Your task to perform on an android device: stop showing notifications on the lock screen Image 0: 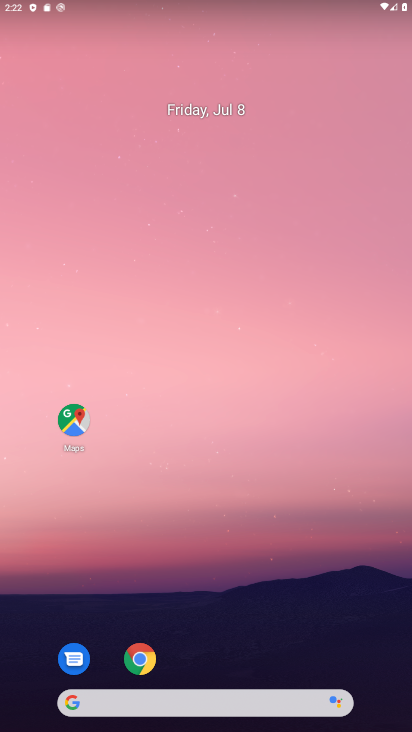
Step 0: drag from (230, 619) to (230, 257)
Your task to perform on an android device: stop showing notifications on the lock screen Image 1: 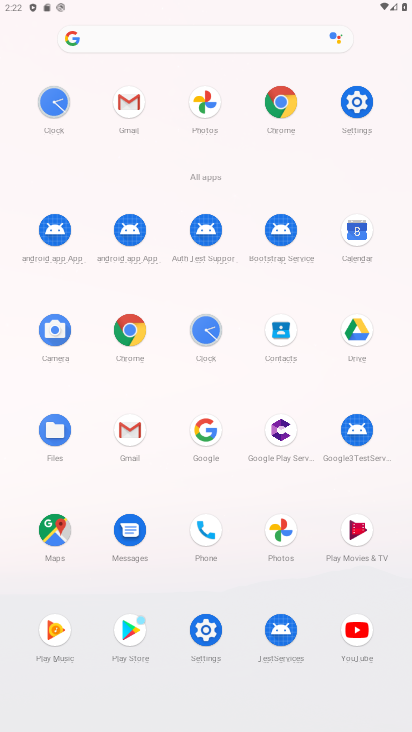
Step 1: click (354, 101)
Your task to perform on an android device: stop showing notifications on the lock screen Image 2: 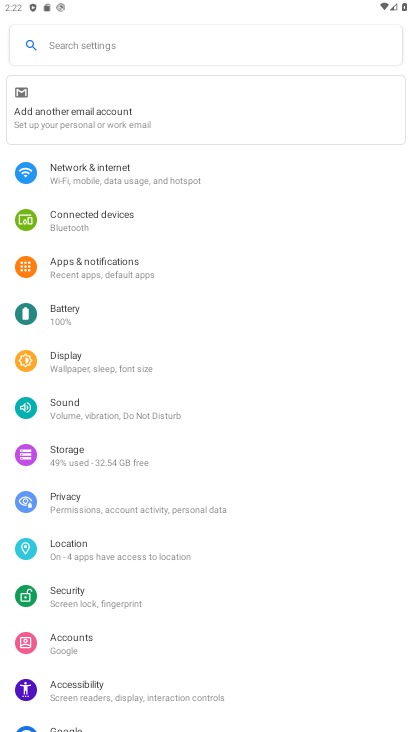
Step 2: click (134, 269)
Your task to perform on an android device: stop showing notifications on the lock screen Image 3: 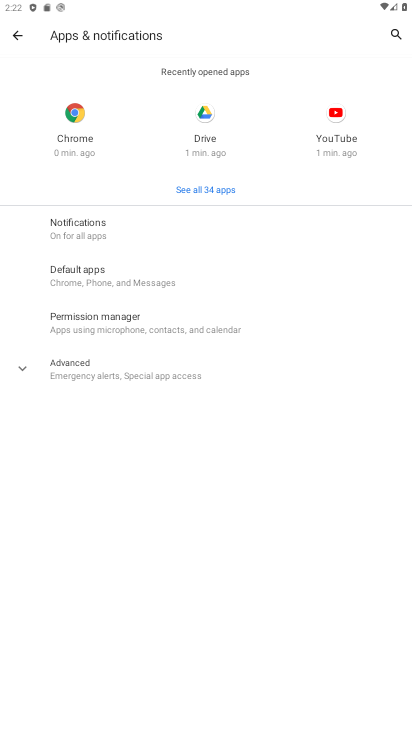
Step 3: click (107, 224)
Your task to perform on an android device: stop showing notifications on the lock screen Image 4: 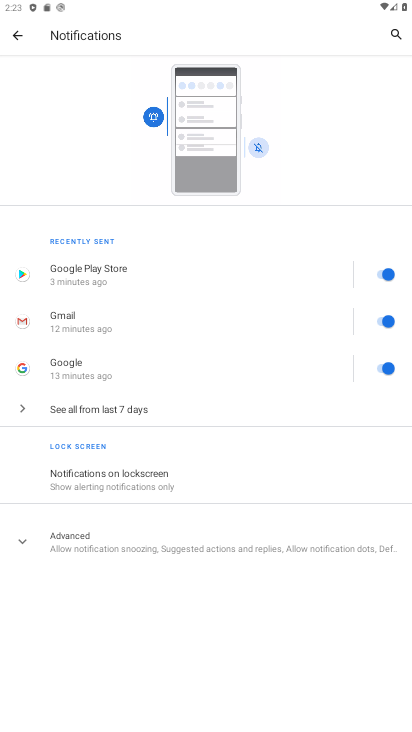
Step 4: click (107, 468)
Your task to perform on an android device: stop showing notifications on the lock screen Image 5: 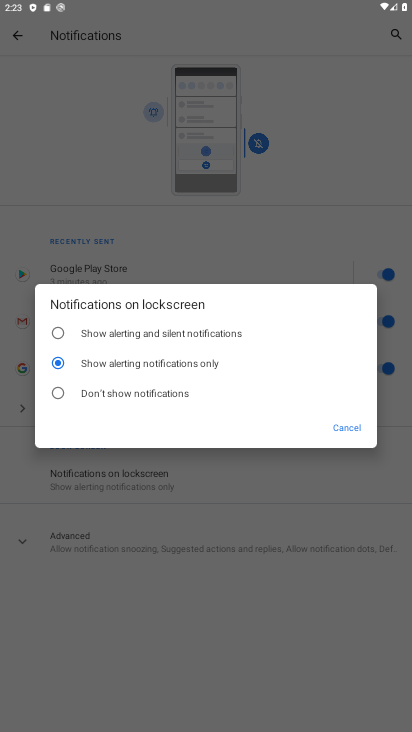
Step 5: click (151, 398)
Your task to perform on an android device: stop showing notifications on the lock screen Image 6: 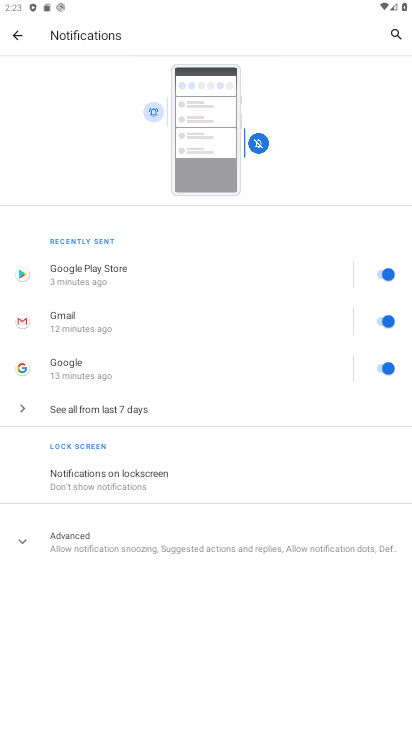
Step 6: task complete